Your task to perform on an android device: Open settings Image 0: 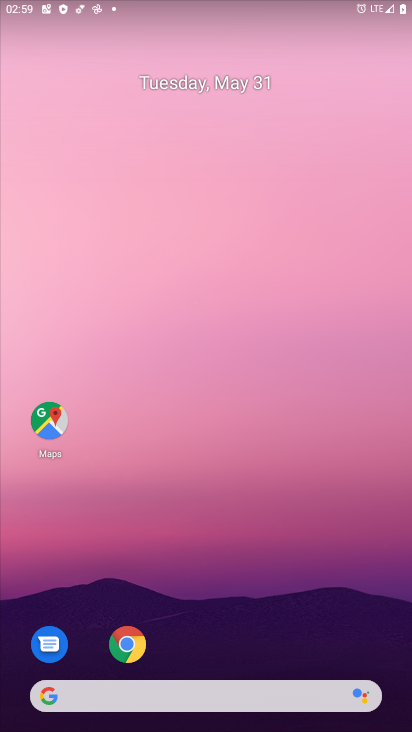
Step 0: drag from (306, 549) to (271, 160)
Your task to perform on an android device: Open settings Image 1: 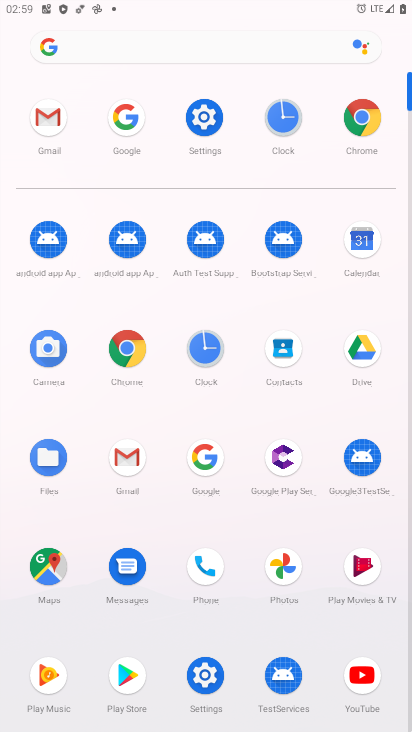
Step 1: click (200, 117)
Your task to perform on an android device: Open settings Image 2: 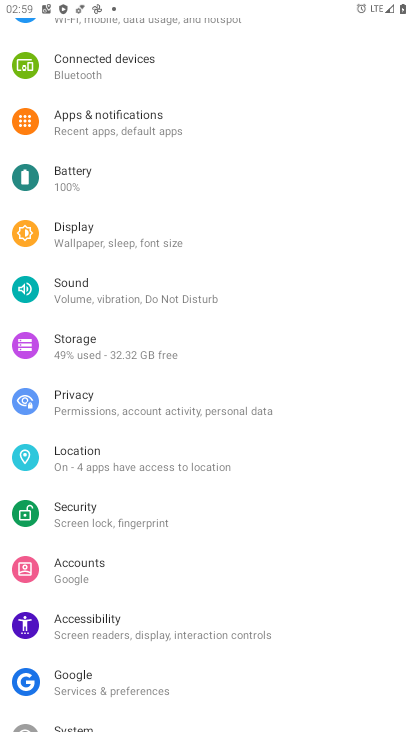
Step 2: task complete